Your task to perform on an android device: toggle location history Image 0: 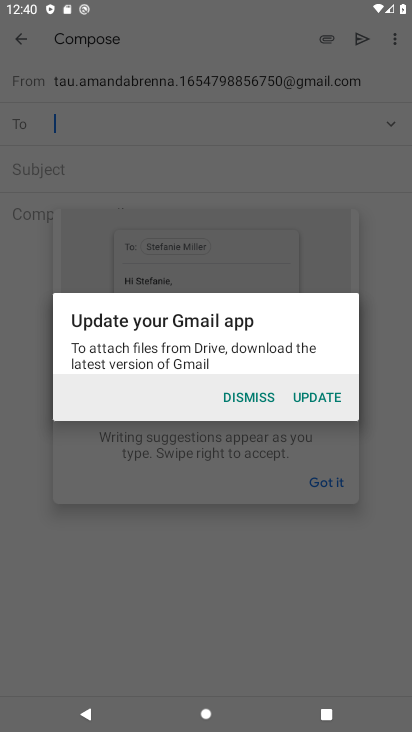
Step 0: task complete